Your task to perform on an android device: When is my next meeting? Image 0: 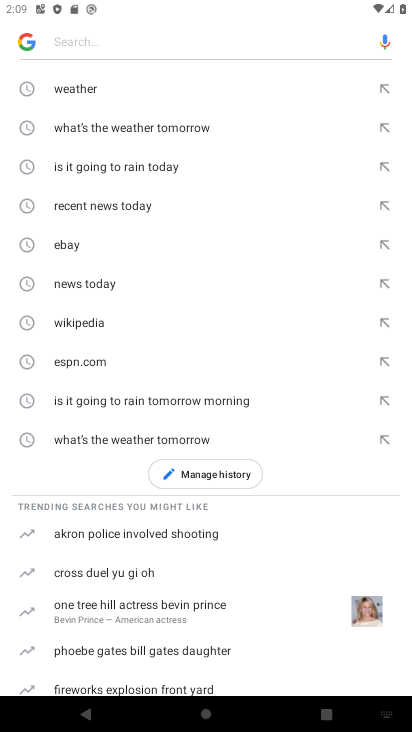
Step 0: press home button
Your task to perform on an android device: When is my next meeting? Image 1: 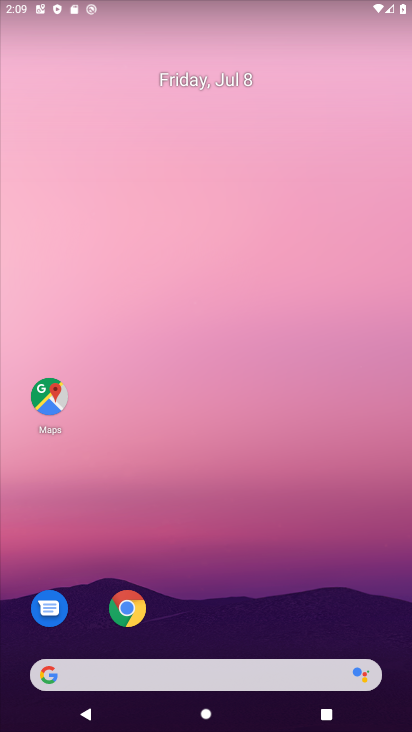
Step 1: drag from (287, 601) to (365, 12)
Your task to perform on an android device: When is my next meeting? Image 2: 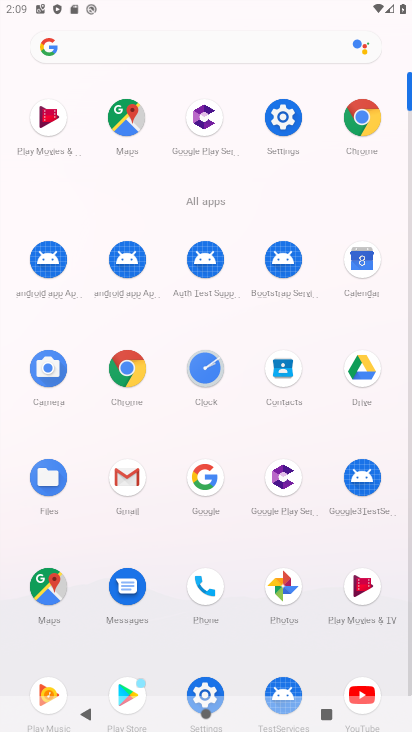
Step 2: click (351, 259)
Your task to perform on an android device: When is my next meeting? Image 3: 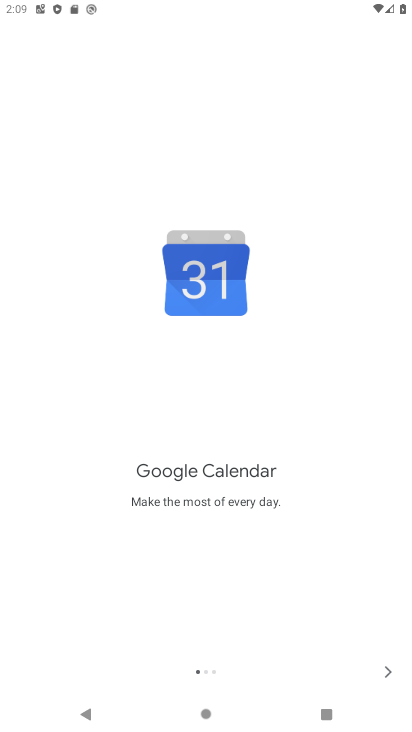
Step 3: click (388, 669)
Your task to perform on an android device: When is my next meeting? Image 4: 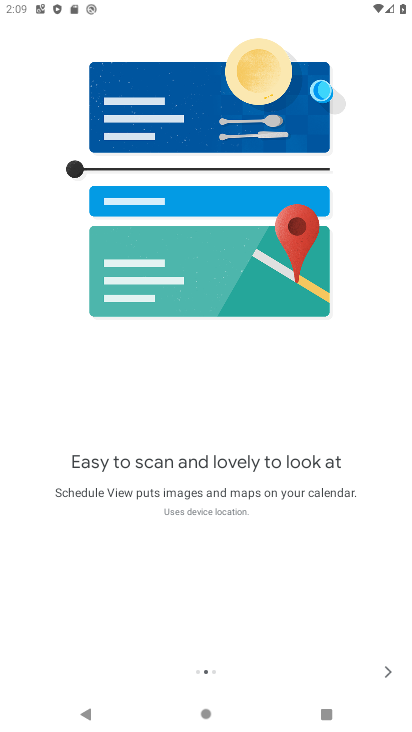
Step 4: click (388, 669)
Your task to perform on an android device: When is my next meeting? Image 5: 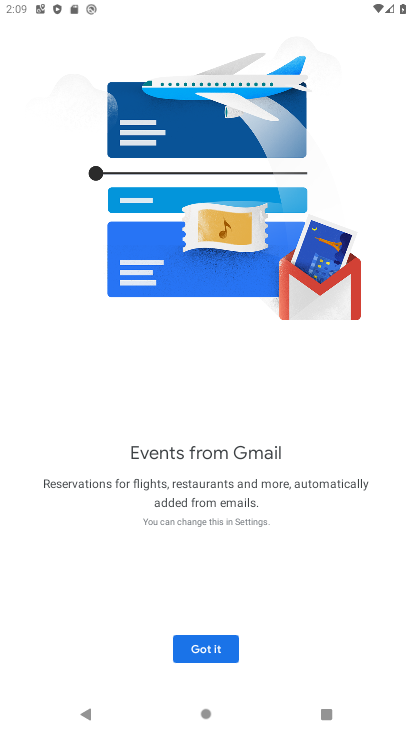
Step 5: click (224, 649)
Your task to perform on an android device: When is my next meeting? Image 6: 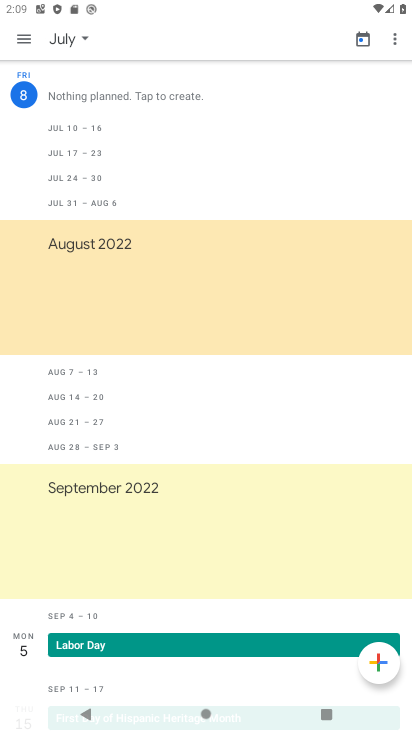
Step 6: click (80, 36)
Your task to perform on an android device: When is my next meeting? Image 7: 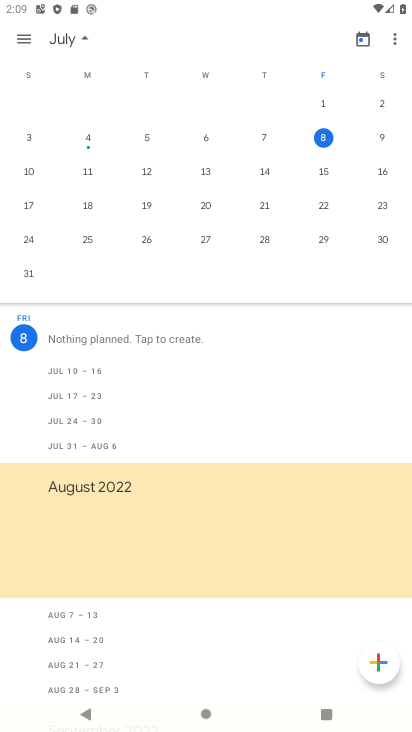
Step 7: click (377, 136)
Your task to perform on an android device: When is my next meeting? Image 8: 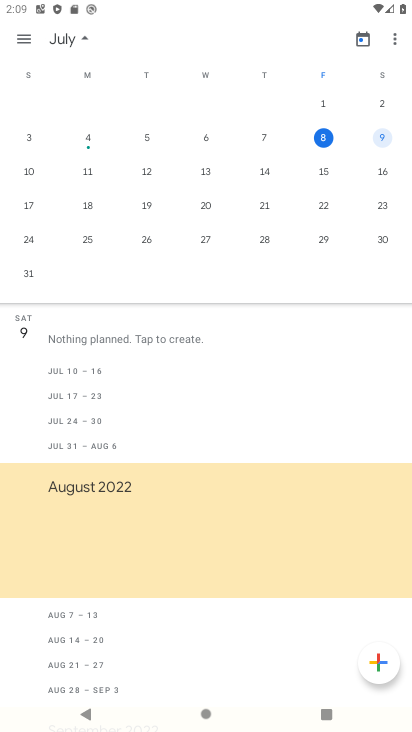
Step 8: task complete